Your task to perform on an android device: toggle translation in the chrome app Image 0: 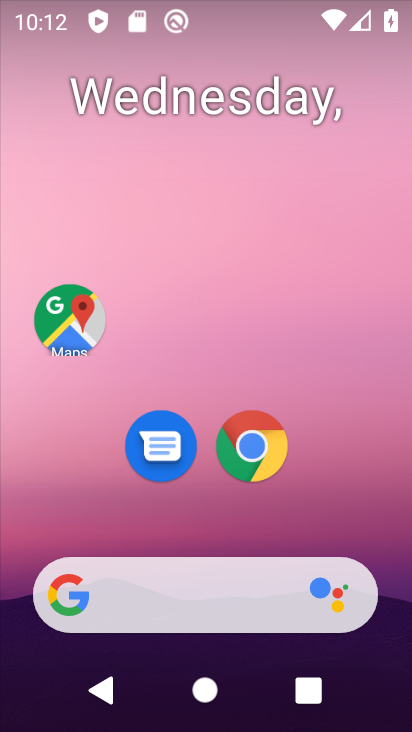
Step 0: click (263, 452)
Your task to perform on an android device: toggle translation in the chrome app Image 1: 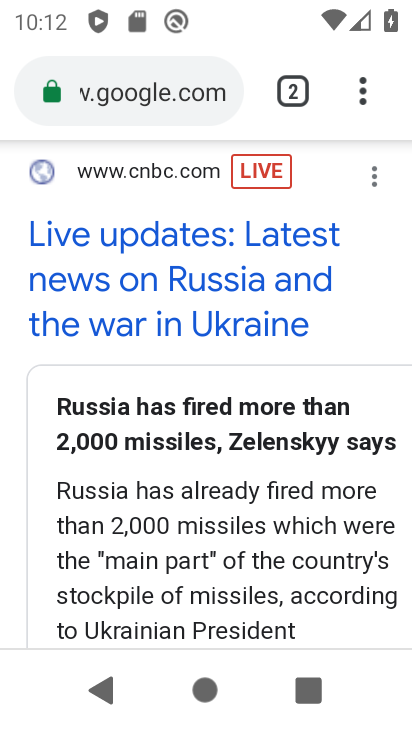
Step 1: drag from (361, 93) to (153, 485)
Your task to perform on an android device: toggle translation in the chrome app Image 2: 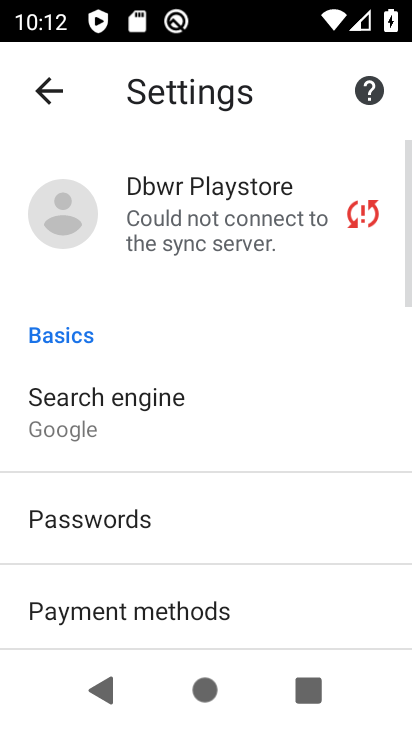
Step 2: drag from (154, 569) to (191, 315)
Your task to perform on an android device: toggle translation in the chrome app Image 3: 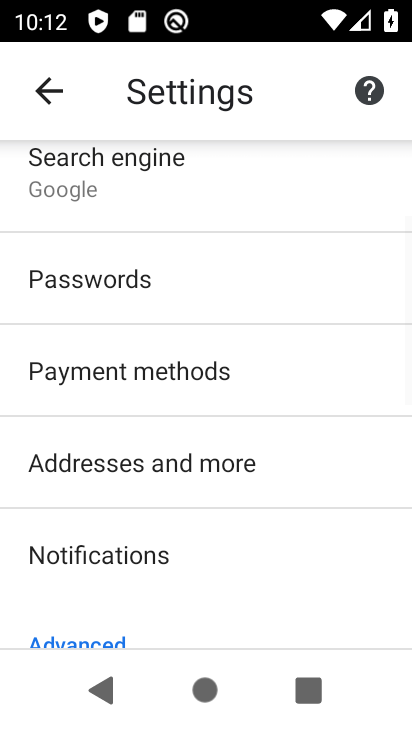
Step 3: drag from (136, 607) to (188, 314)
Your task to perform on an android device: toggle translation in the chrome app Image 4: 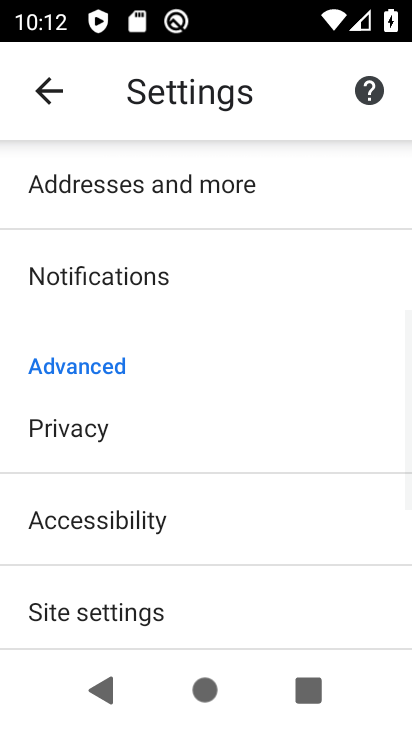
Step 4: drag from (161, 612) to (235, 339)
Your task to perform on an android device: toggle translation in the chrome app Image 5: 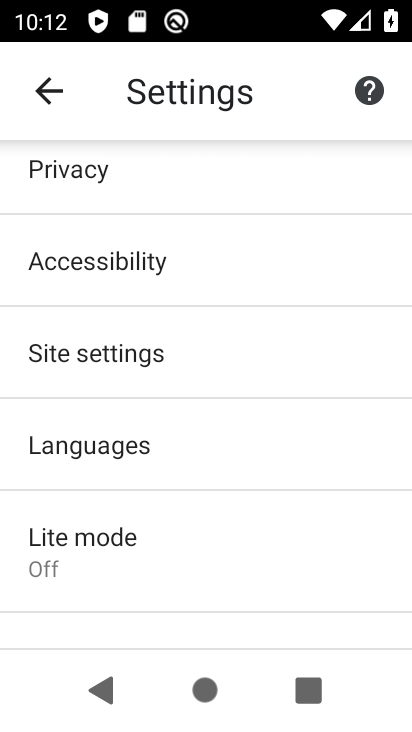
Step 5: click (173, 452)
Your task to perform on an android device: toggle translation in the chrome app Image 6: 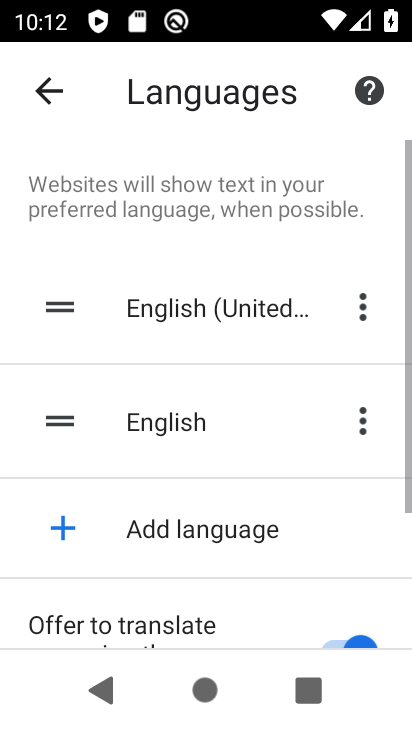
Step 6: drag from (345, 609) to (352, 414)
Your task to perform on an android device: toggle translation in the chrome app Image 7: 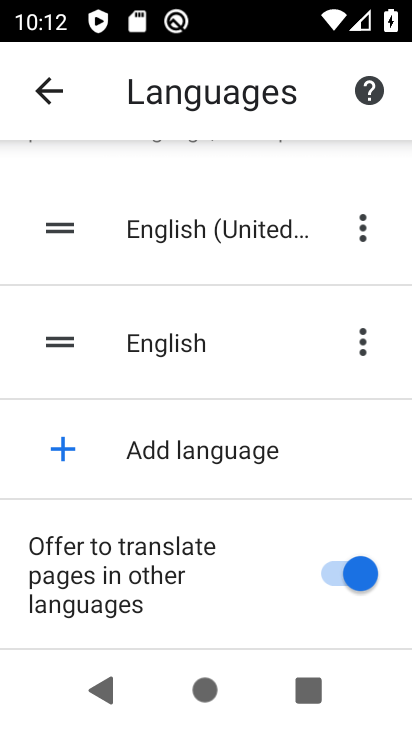
Step 7: click (337, 585)
Your task to perform on an android device: toggle translation in the chrome app Image 8: 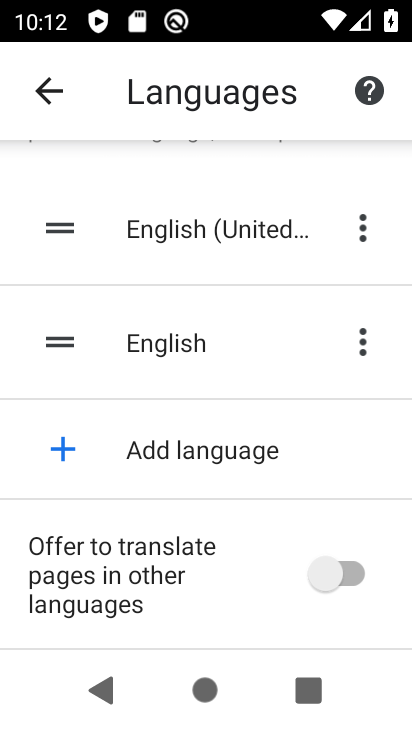
Step 8: task complete